Your task to perform on an android device: Go to eBay Image 0: 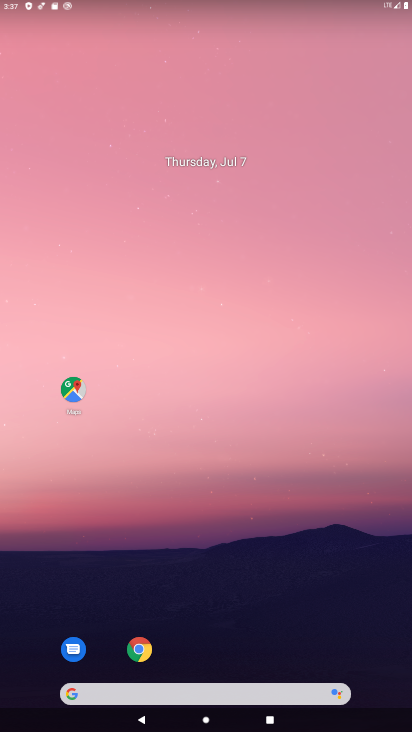
Step 0: drag from (292, 571) to (347, 264)
Your task to perform on an android device: Go to eBay Image 1: 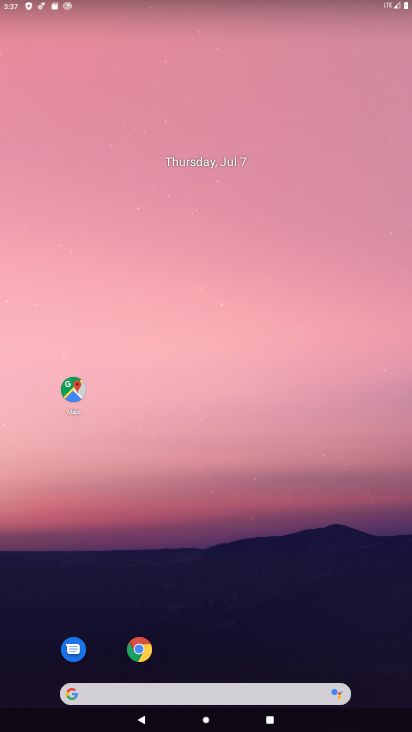
Step 1: click (144, 661)
Your task to perform on an android device: Go to eBay Image 2: 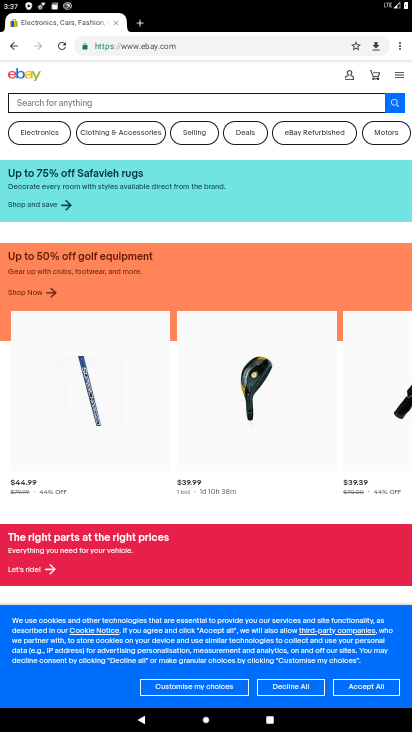
Step 2: task complete